Your task to perform on an android device: Open calendar and show me the third week of next month Image 0: 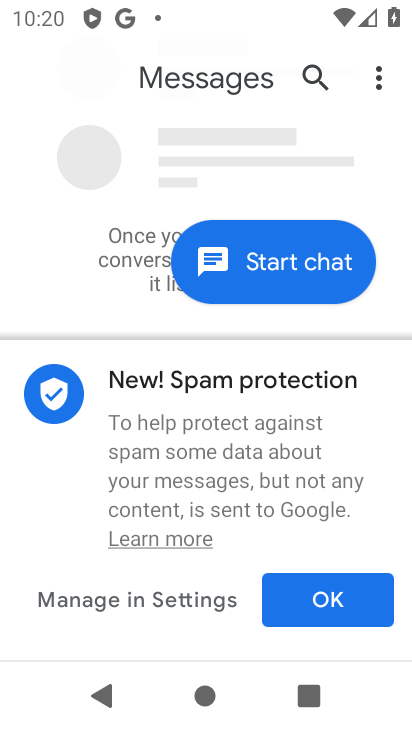
Step 0: press home button
Your task to perform on an android device: Open calendar and show me the third week of next month Image 1: 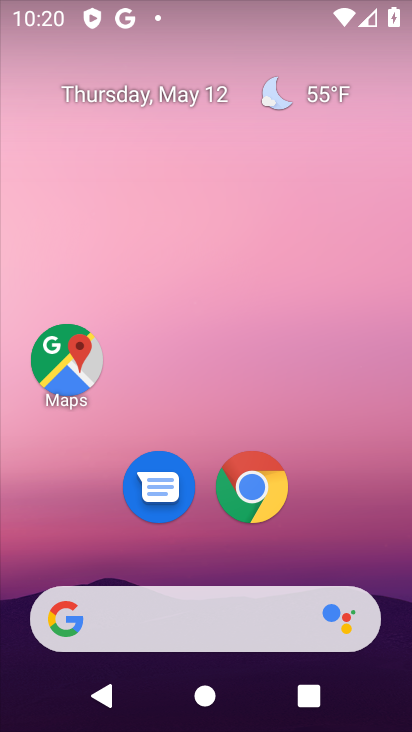
Step 1: drag from (345, 555) to (392, 16)
Your task to perform on an android device: Open calendar and show me the third week of next month Image 2: 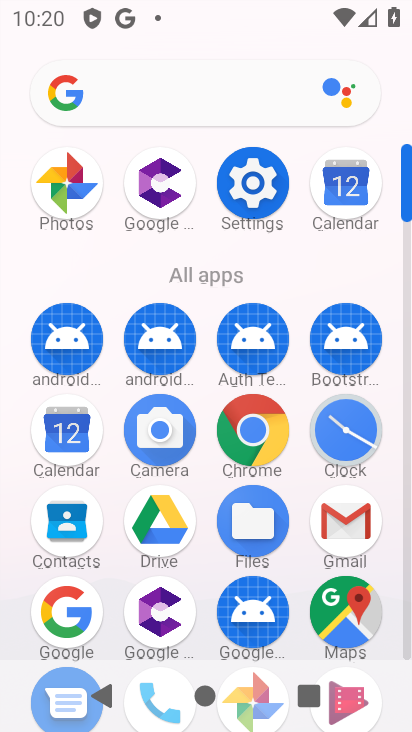
Step 2: click (353, 194)
Your task to perform on an android device: Open calendar and show me the third week of next month Image 3: 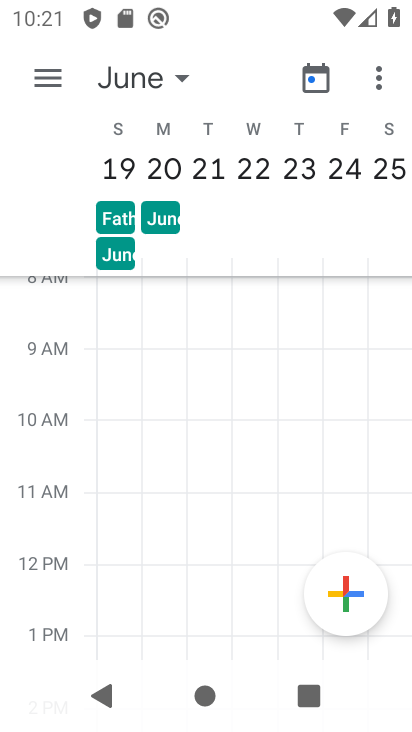
Step 3: task complete